Your task to perform on an android device: add a label to a message in the gmail app Image 0: 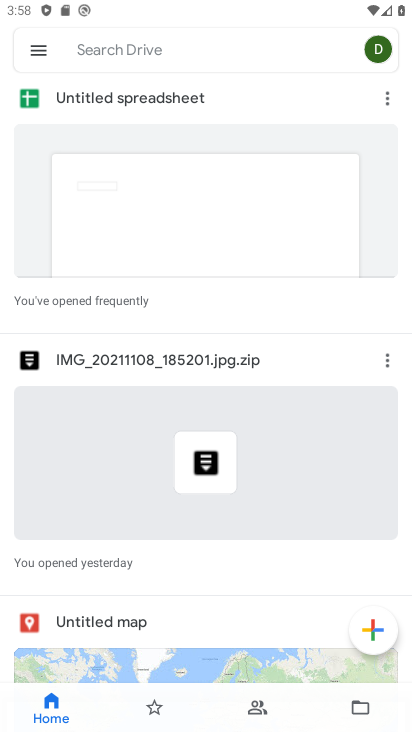
Step 0: press home button
Your task to perform on an android device: add a label to a message in the gmail app Image 1: 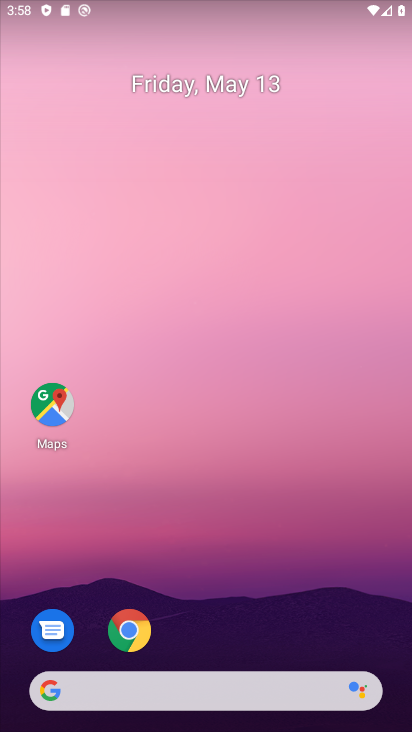
Step 1: drag from (214, 724) to (214, 219)
Your task to perform on an android device: add a label to a message in the gmail app Image 2: 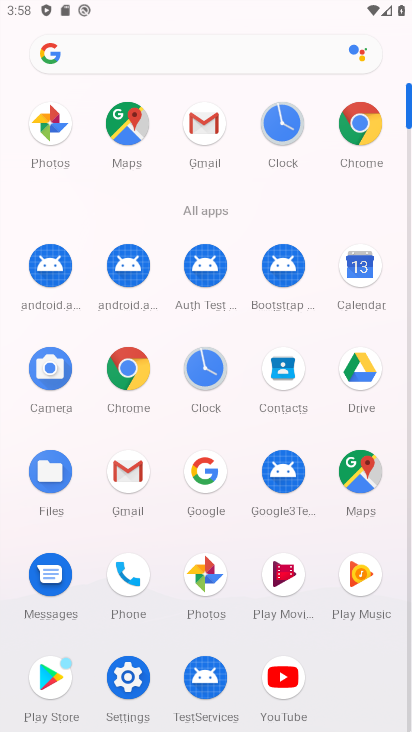
Step 2: click (127, 465)
Your task to perform on an android device: add a label to a message in the gmail app Image 3: 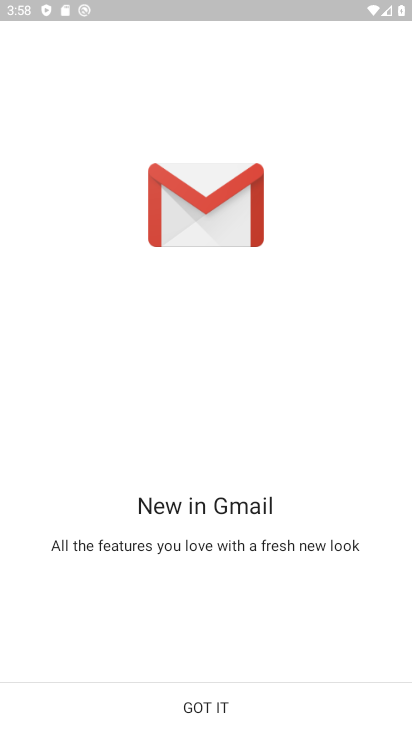
Step 3: click (208, 701)
Your task to perform on an android device: add a label to a message in the gmail app Image 4: 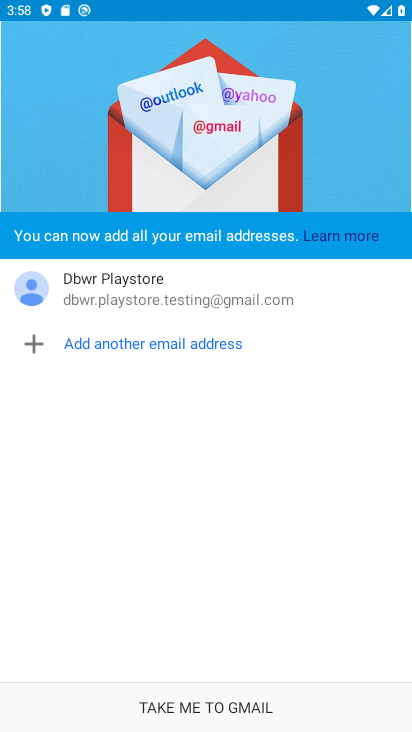
Step 4: click (168, 707)
Your task to perform on an android device: add a label to a message in the gmail app Image 5: 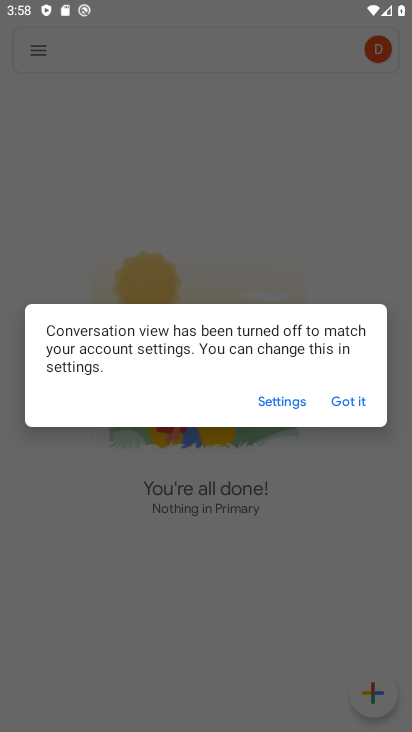
Step 5: click (356, 399)
Your task to perform on an android device: add a label to a message in the gmail app Image 6: 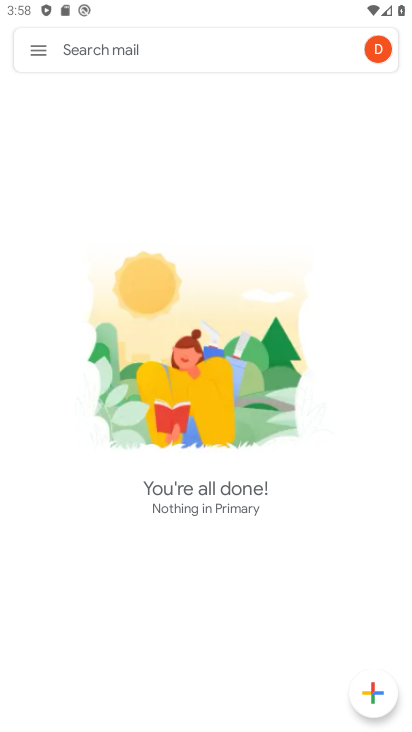
Step 6: task complete